Your task to perform on an android device: Open sound settings Image 0: 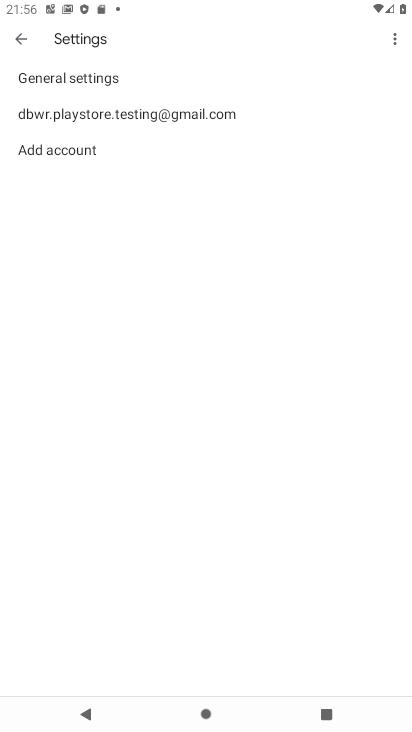
Step 0: press home button
Your task to perform on an android device: Open sound settings Image 1: 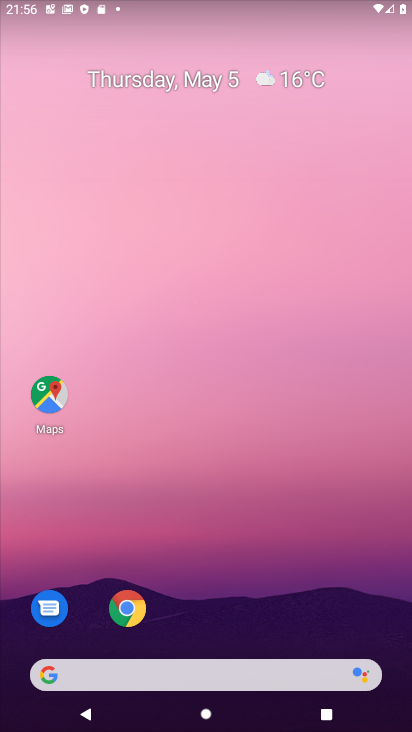
Step 1: drag from (251, 568) to (276, 122)
Your task to perform on an android device: Open sound settings Image 2: 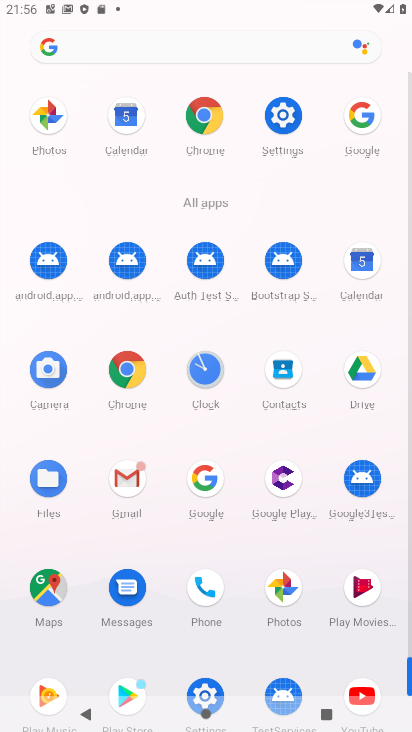
Step 2: click (287, 121)
Your task to perform on an android device: Open sound settings Image 3: 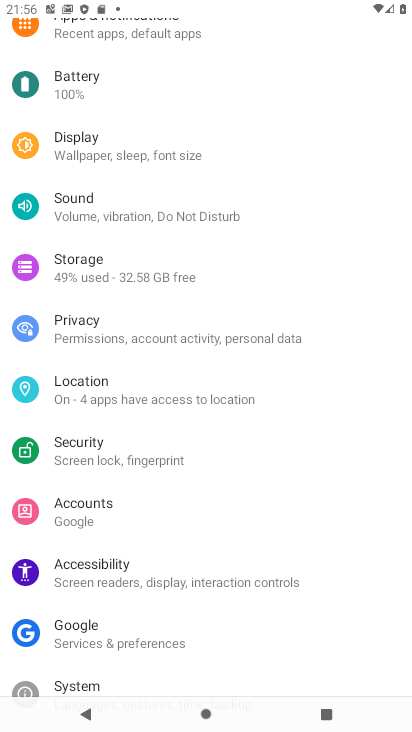
Step 3: click (157, 215)
Your task to perform on an android device: Open sound settings Image 4: 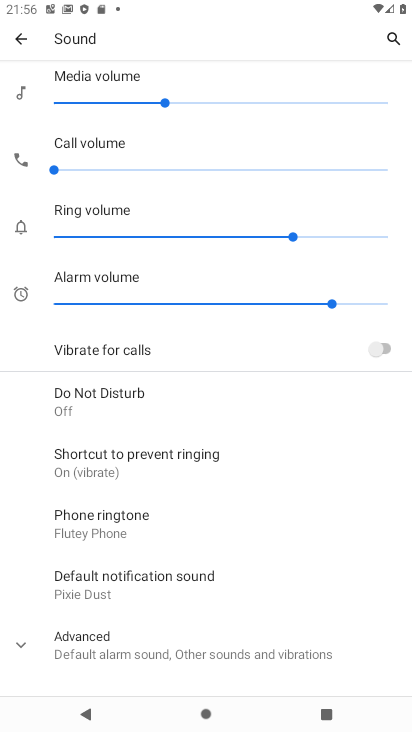
Step 4: task complete